Your task to perform on an android device: Go to eBay Image 0: 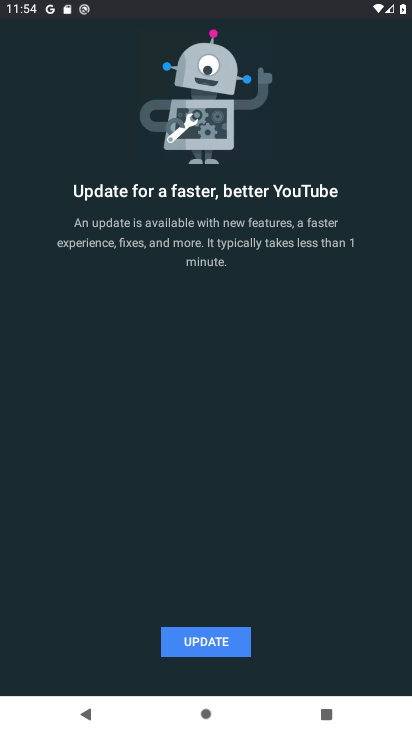
Step 0: press home button
Your task to perform on an android device: Go to eBay Image 1: 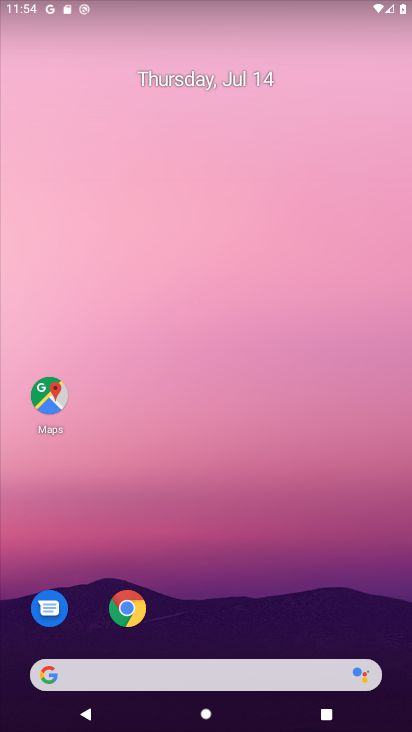
Step 1: drag from (230, 564) to (193, 162)
Your task to perform on an android device: Go to eBay Image 2: 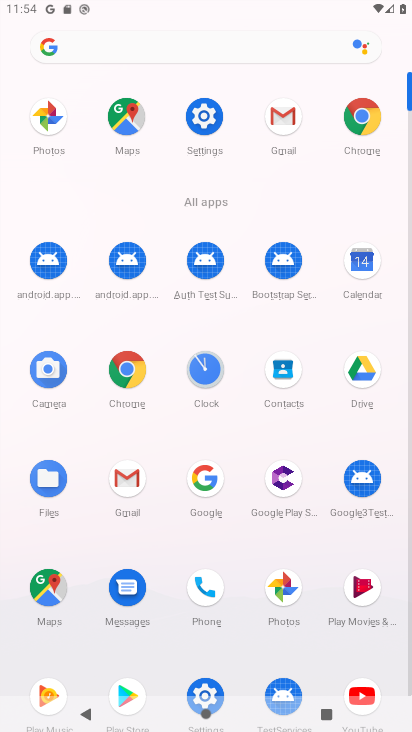
Step 2: click (355, 109)
Your task to perform on an android device: Go to eBay Image 3: 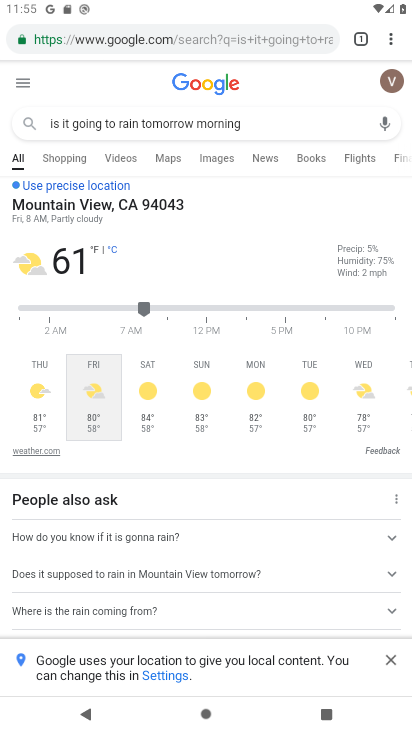
Step 3: click (389, 34)
Your task to perform on an android device: Go to eBay Image 4: 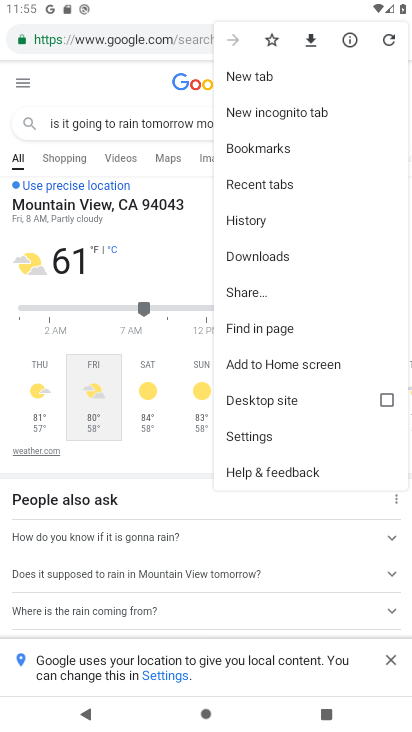
Step 4: click (263, 79)
Your task to perform on an android device: Go to eBay Image 5: 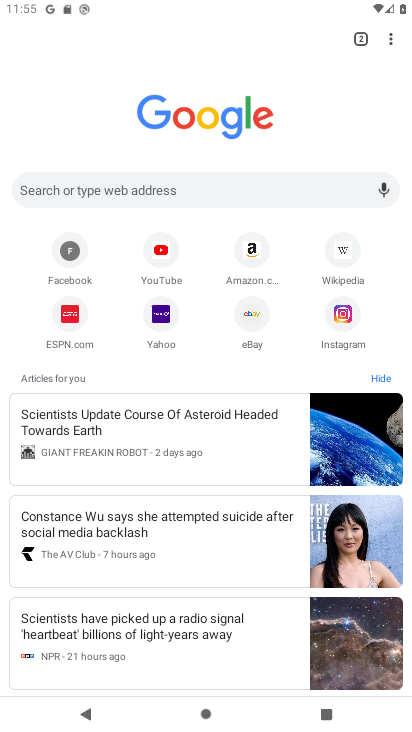
Step 5: click (248, 312)
Your task to perform on an android device: Go to eBay Image 6: 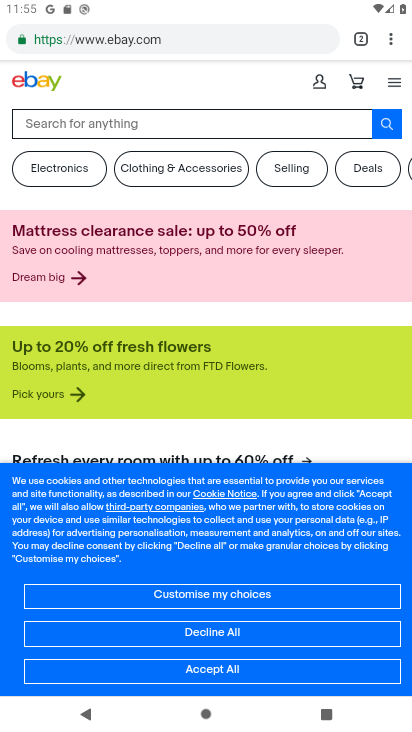
Step 6: task complete